Your task to perform on an android device: check the backup settings in the google photos Image 0: 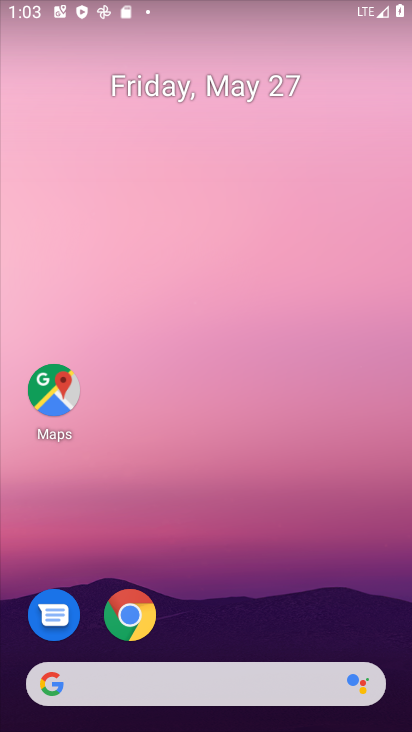
Step 0: drag from (198, 661) to (251, 29)
Your task to perform on an android device: check the backup settings in the google photos Image 1: 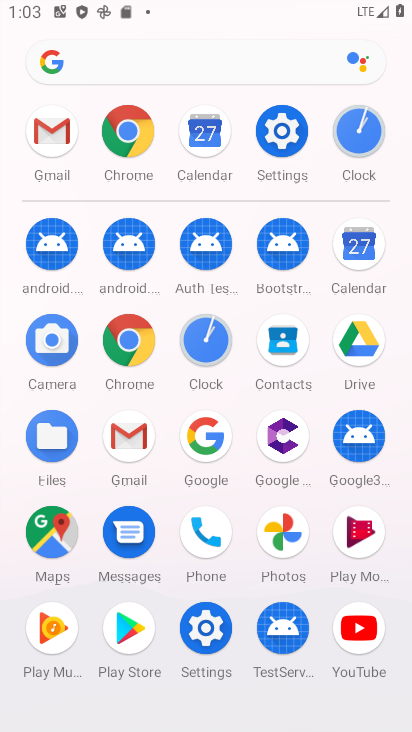
Step 1: click (278, 536)
Your task to perform on an android device: check the backup settings in the google photos Image 2: 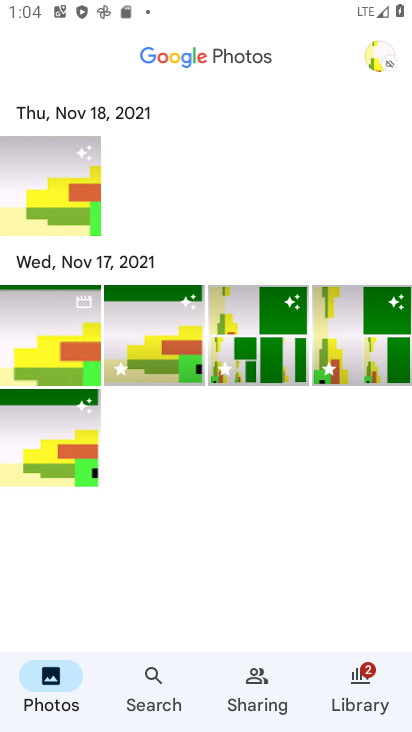
Step 2: click (385, 48)
Your task to perform on an android device: check the backup settings in the google photos Image 3: 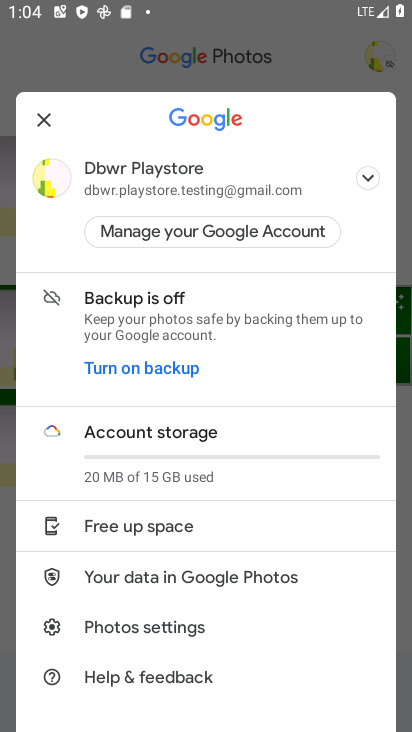
Step 3: click (175, 370)
Your task to perform on an android device: check the backup settings in the google photos Image 4: 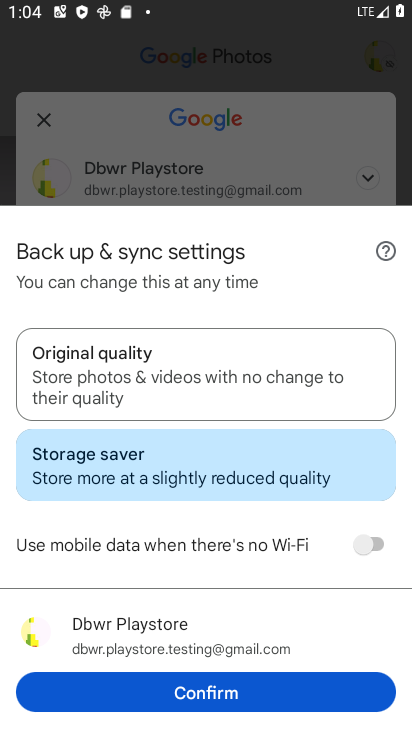
Step 4: click (188, 694)
Your task to perform on an android device: check the backup settings in the google photos Image 5: 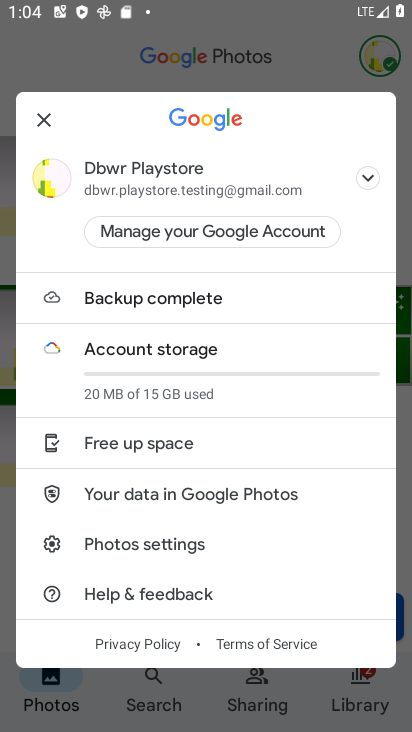
Step 5: click (196, 539)
Your task to perform on an android device: check the backup settings in the google photos Image 6: 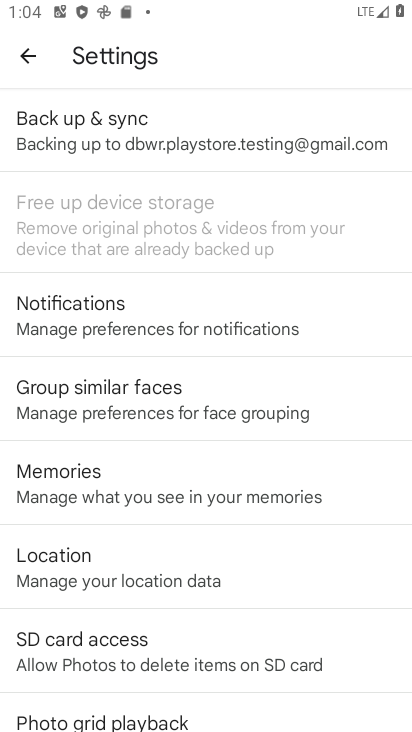
Step 6: click (95, 119)
Your task to perform on an android device: check the backup settings in the google photos Image 7: 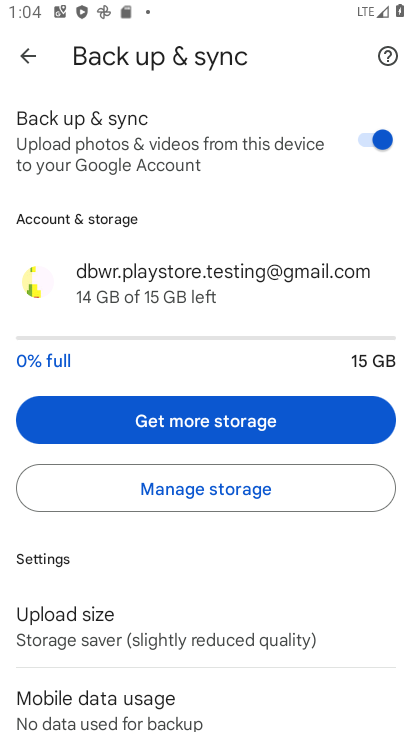
Step 7: task complete